Your task to perform on an android device: Open ESPN.com Image 0: 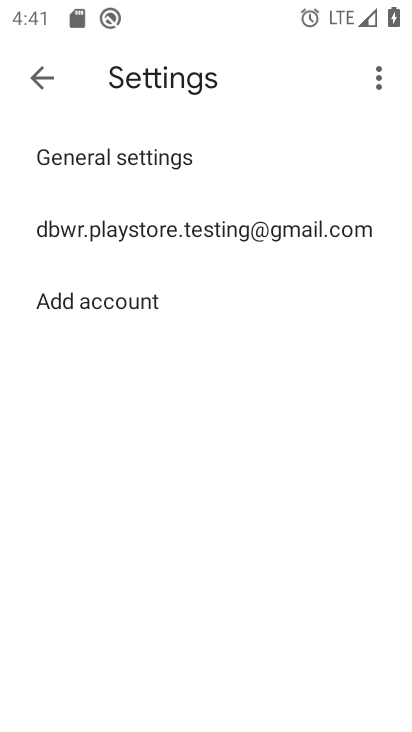
Step 0: press home button
Your task to perform on an android device: Open ESPN.com Image 1: 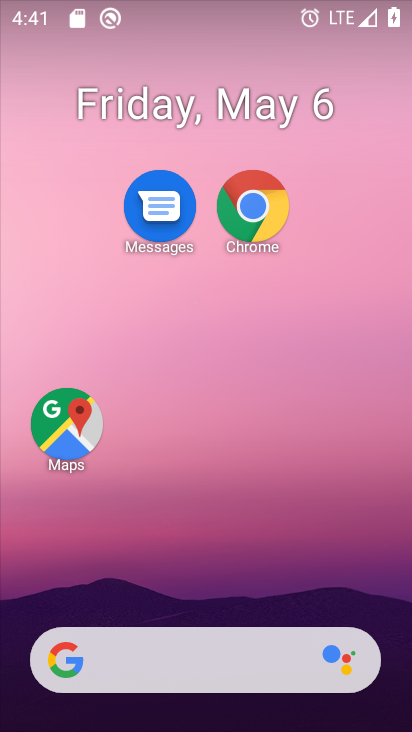
Step 1: click (252, 212)
Your task to perform on an android device: Open ESPN.com Image 2: 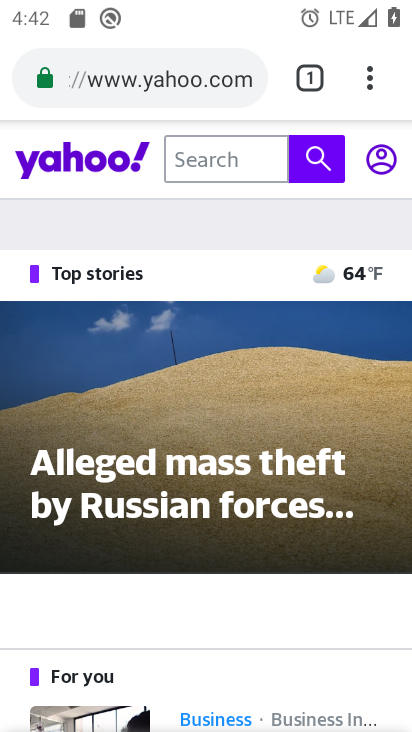
Step 2: click (310, 85)
Your task to perform on an android device: Open ESPN.com Image 3: 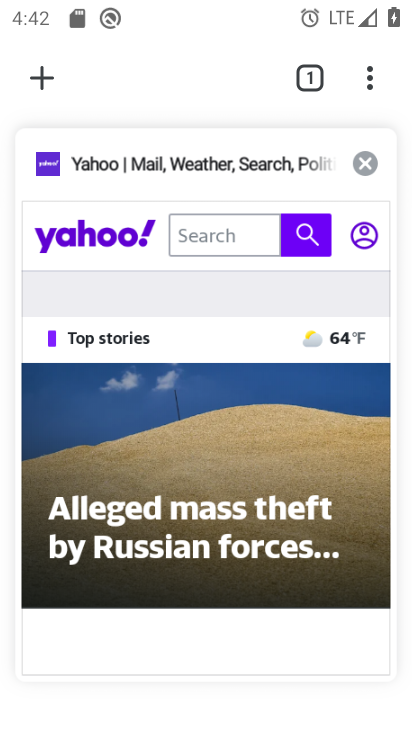
Step 3: click (357, 163)
Your task to perform on an android device: Open ESPN.com Image 4: 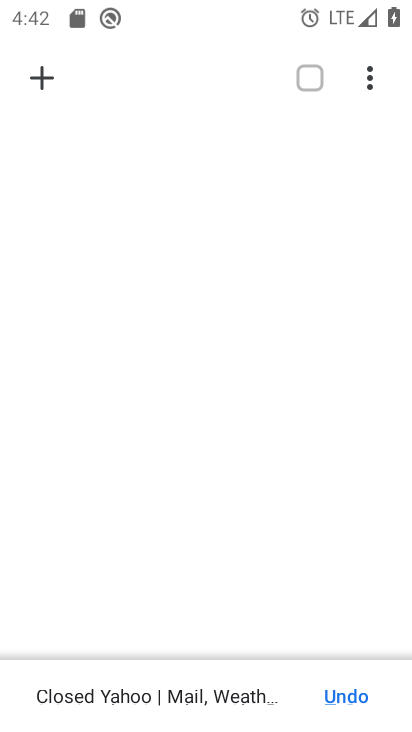
Step 4: click (43, 83)
Your task to perform on an android device: Open ESPN.com Image 5: 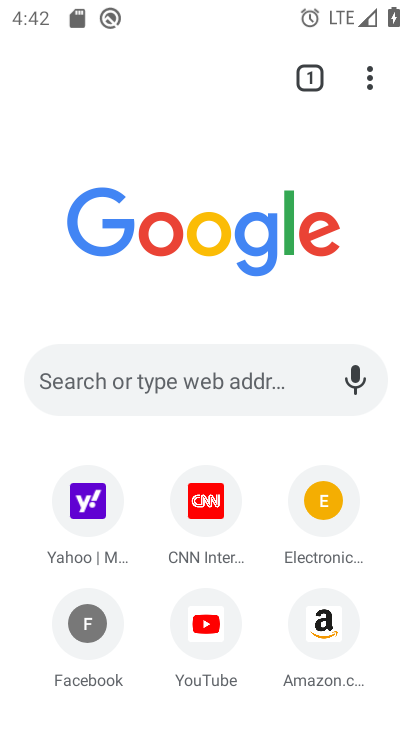
Step 5: drag from (147, 685) to (141, 438)
Your task to perform on an android device: Open ESPN.com Image 6: 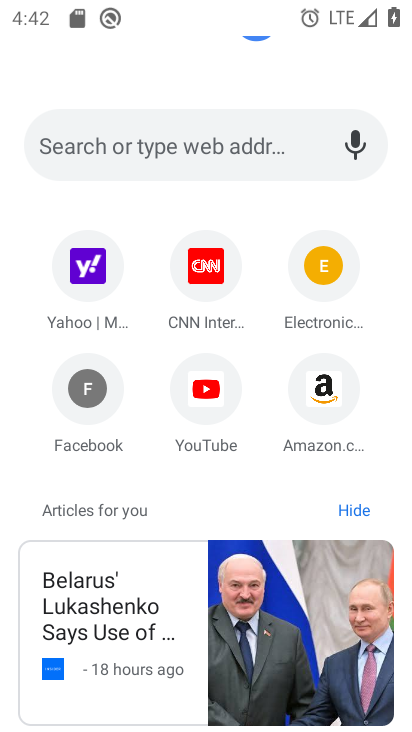
Step 6: click (111, 148)
Your task to perform on an android device: Open ESPN.com Image 7: 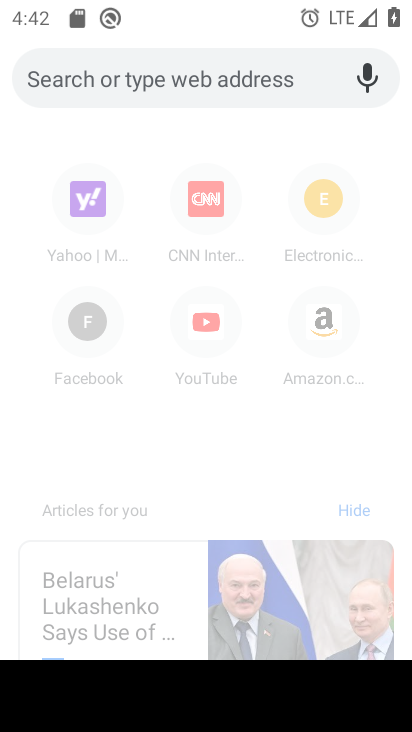
Step 7: type "ESPN.com"
Your task to perform on an android device: Open ESPN.com Image 8: 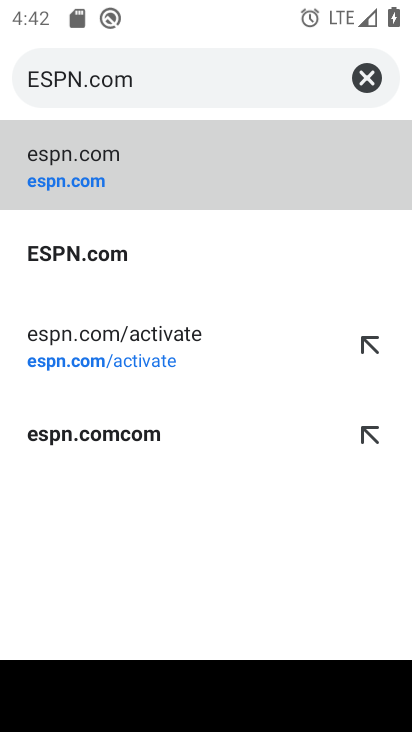
Step 8: click (66, 266)
Your task to perform on an android device: Open ESPN.com Image 9: 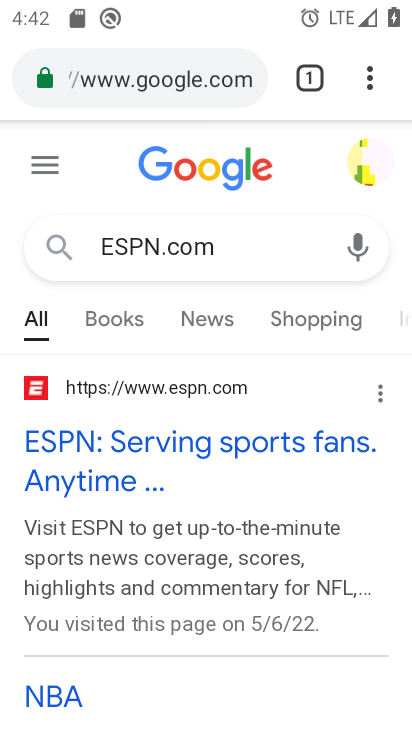
Step 9: click (82, 441)
Your task to perform on an android device: Open ESPN.com Image 10: 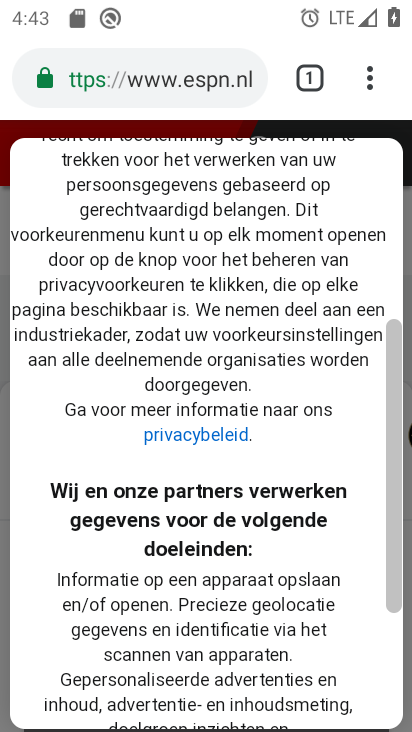
Step 10: task complete